Your task to perform on an android device: Show me recent news Image 0: 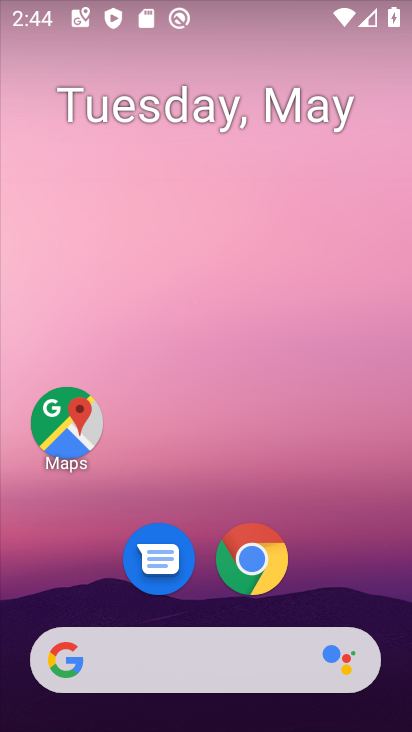
Step 0: press home button
Your task to perform on an android device: Show me recent news Image 1: 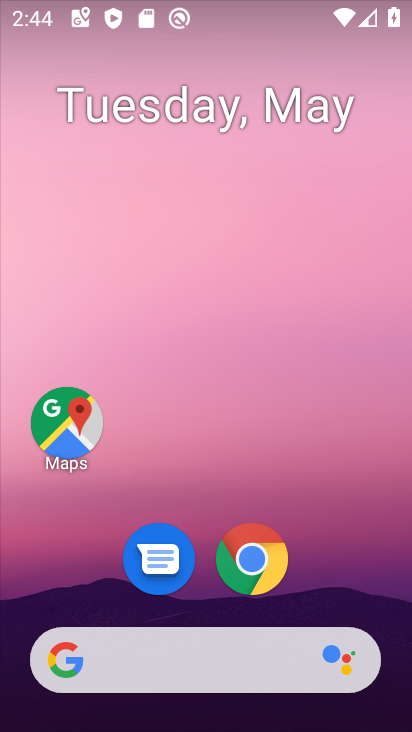
Step 1: click (73, 673)
Your task to perform on an android device: Show me recent news Image 2: 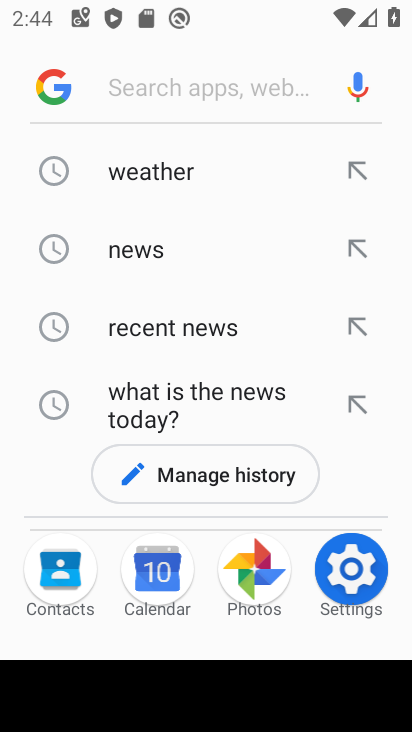
Step 2: click (150, 255)
Your task to perform on an android device: Show me recent news Image 3: 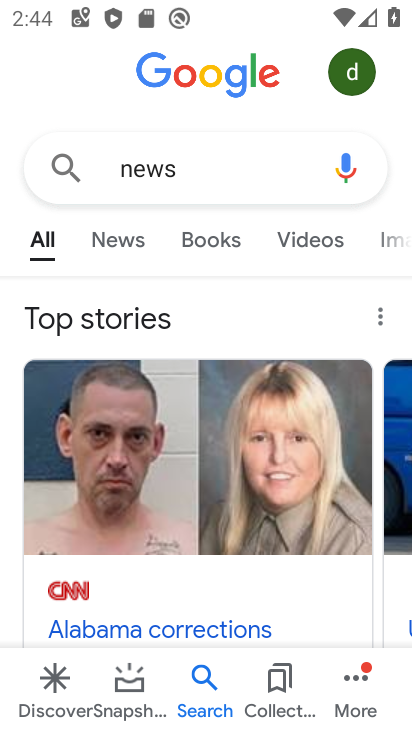
Step 3: click (117, 239)
Your task to perform on an android device: Show me recent news Image 4: 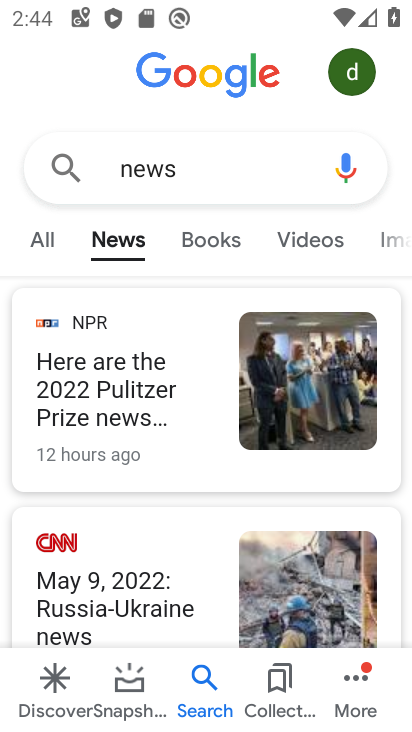
Step 4: task complete